Your task to perform on an android device: Clear the shopping cart on ebay.com. Search for logitech g pro on ebay.com, select the first entry, add it to the cart, then select checkout. Image 0: 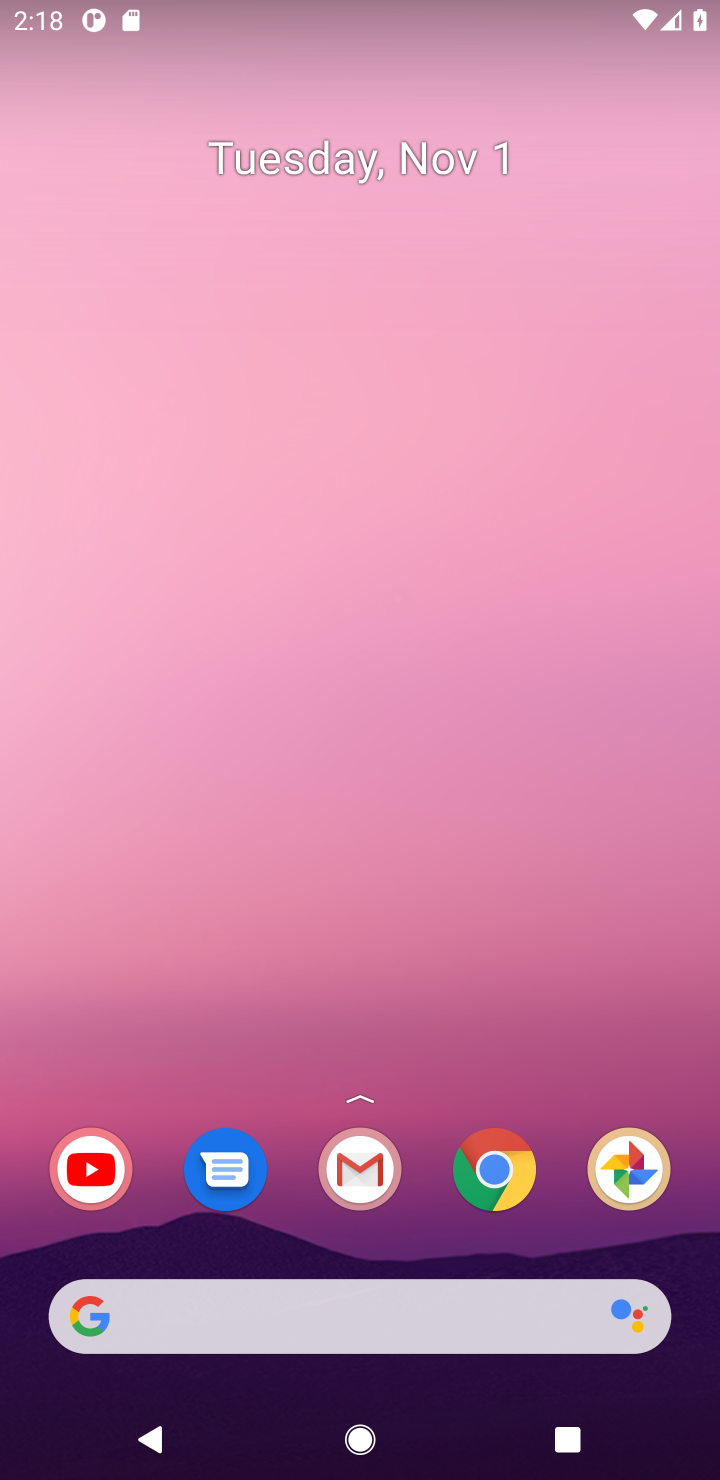
Step 0: press home button
Your task to perform on an android device: Clear the shopping cart on ebay.com. Search for logitech g pro on ebay.com, select the first entry, add it to the cart, then select checkout. Image 1: 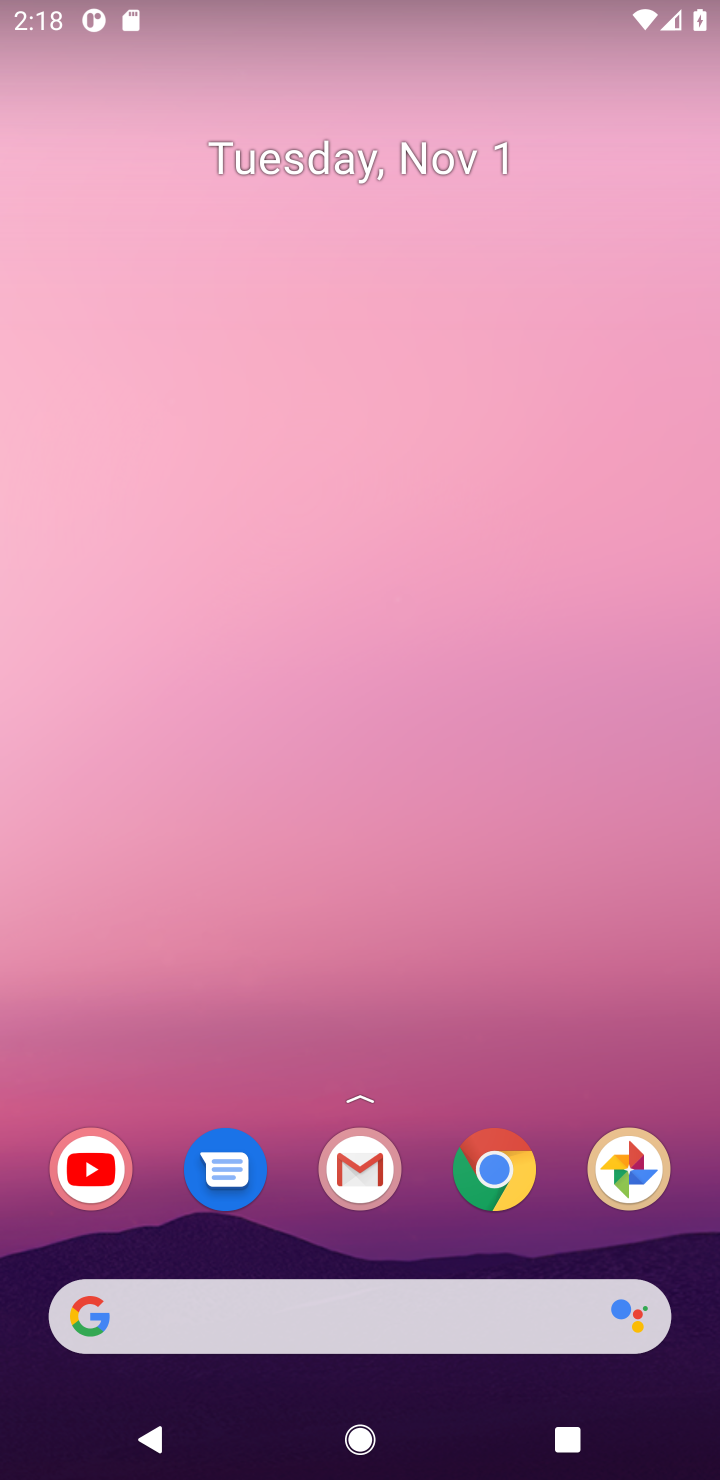
Step 1: drag from (433, 849) to (458, 87)
Your task to perform on an android device: Clear the shopping cart on ebay.com. Search for logitech g pro on ebay.com, select the first entry, add it to the cart, then select checkout. Image 2: 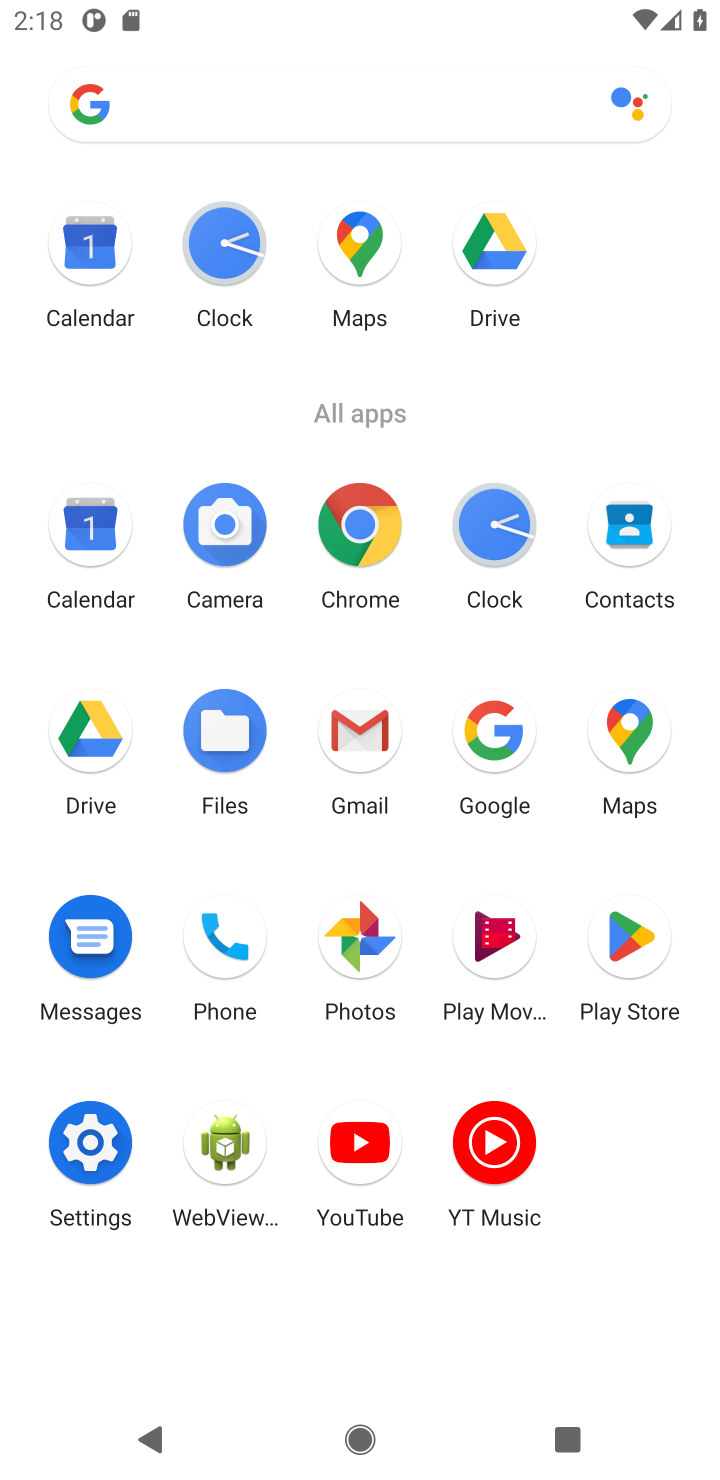
Step 2: click (361, 519)
Your task to perform on an android device: Clear the shopping cart on ebay.com. Search for logitech g pro on ebay.com, select the first entry, add it to the cart, then select checkout. Image 3: 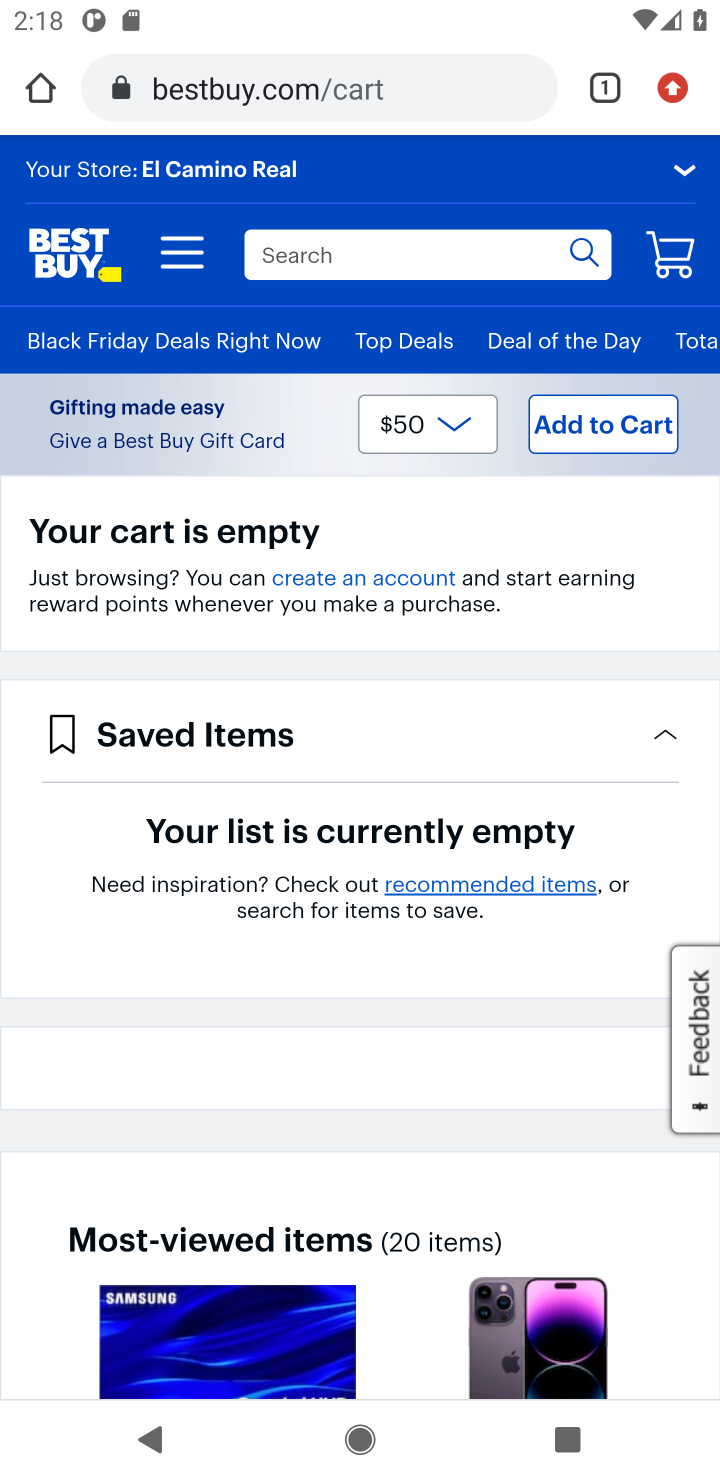
Step 3: click (268, 88)
Your task to perform on an android device: Clear the shopping cart on ebay.com. Search for logitech g pro on ebay.com, select the first entry, add it to the cart, then select checkout. Image 4: 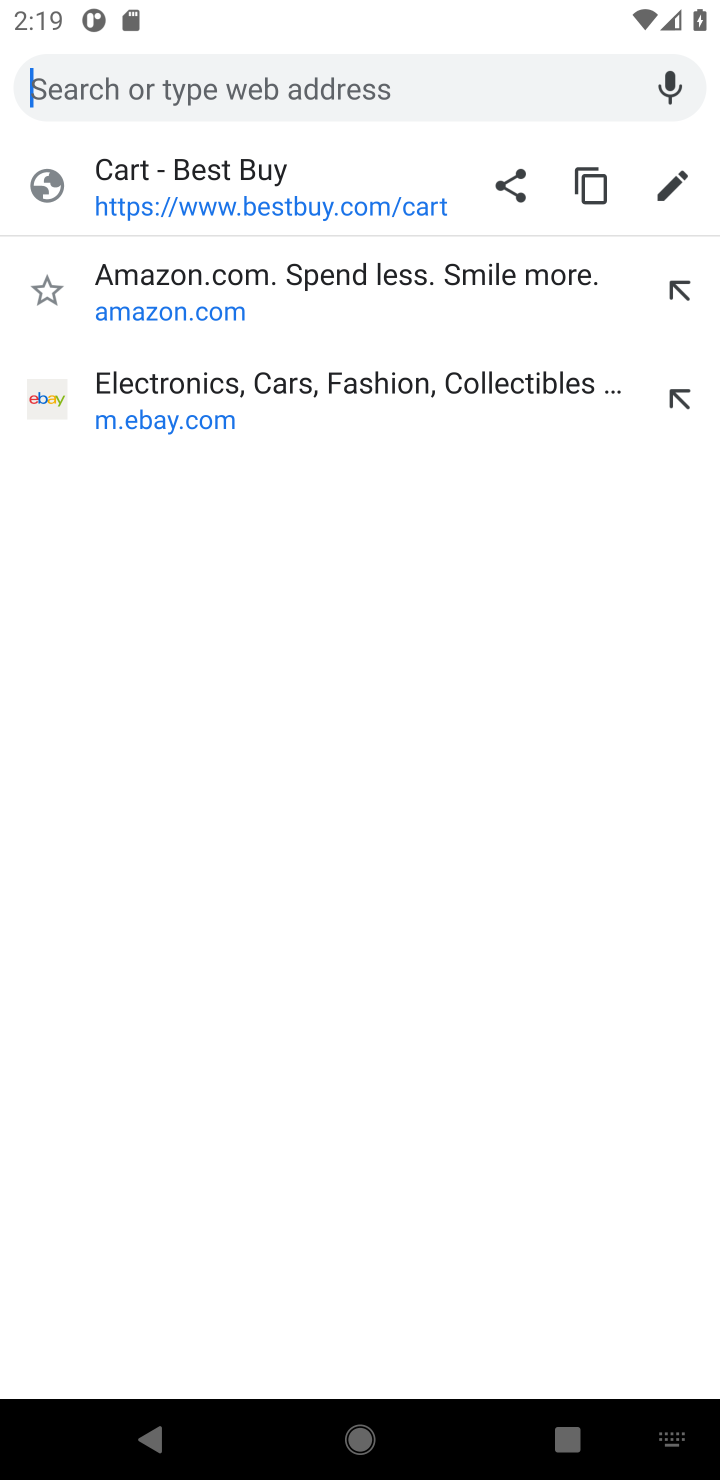
Step 4: click (161, 407)
Your task to perform on an android device: Clear the shopping cart on ebay.com. Search for logitech g pro on ebay.com, select the first entry, add it to the cart, then select checkout. Image 5: 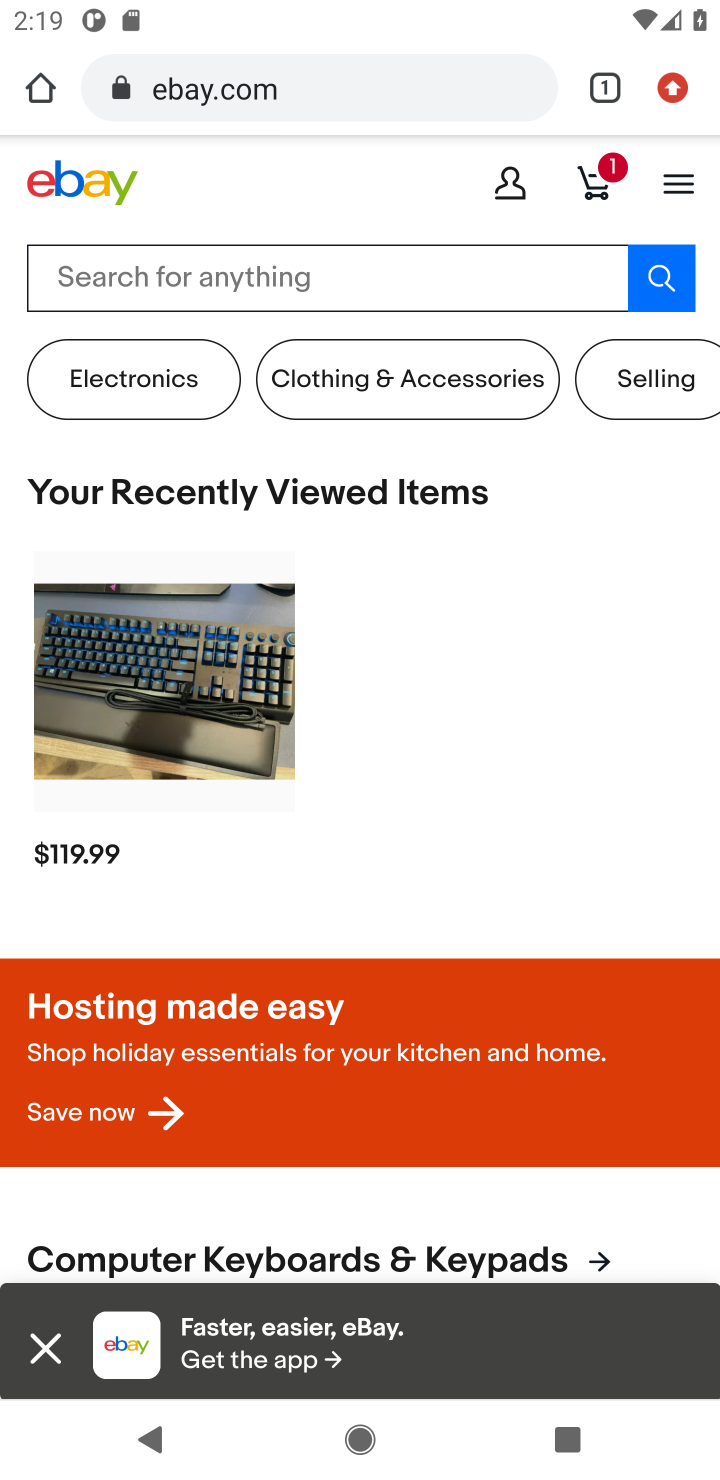
Step 5: click (204, 269)
Your task to perform on an android device: Clear the shopping cart on ebay.com. Search for logitech g pro on ebay.com, select the first entry, add it to the cart, then select checkout. Image 6: 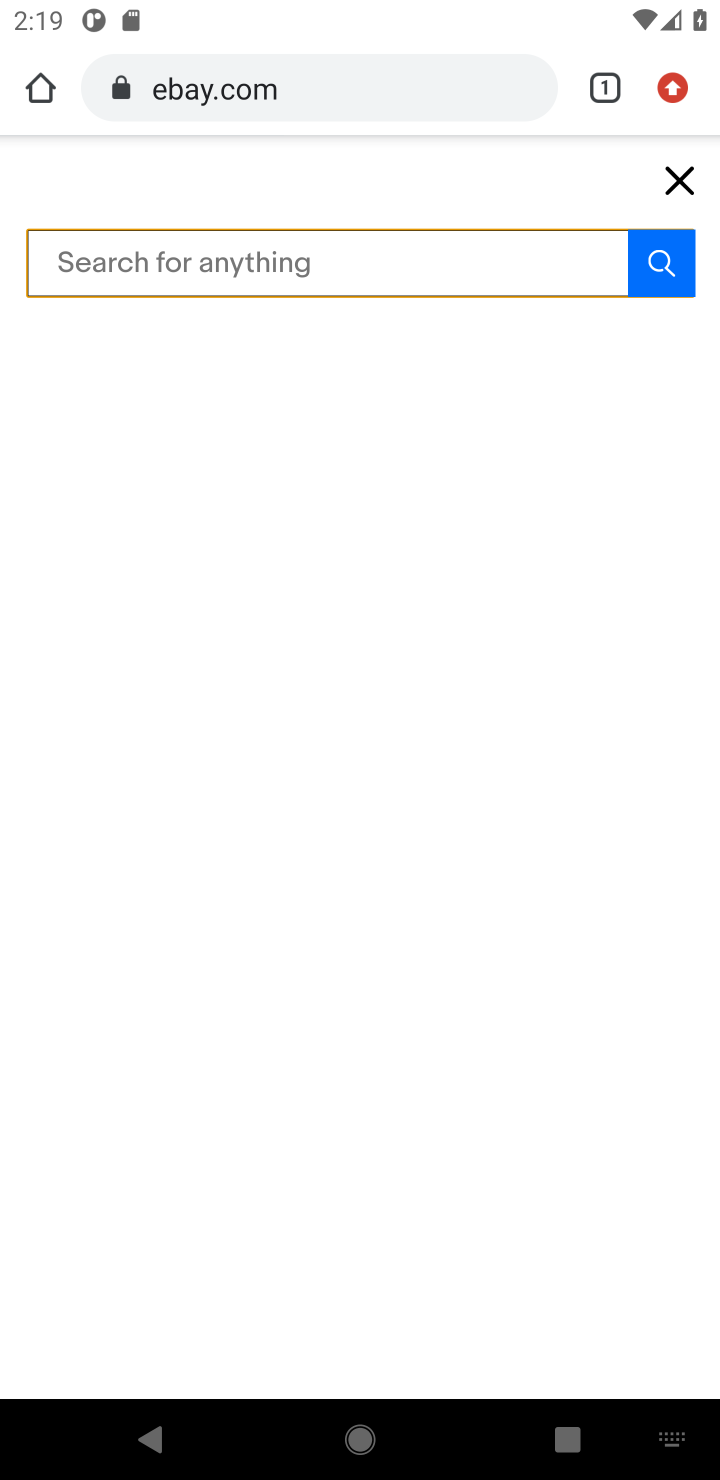
Step 6: type "logitech g pro"
Your task to perform on an android device: Clear the shopping cart on ebay.com. Search for logitech g pro on ebay.com, select the first entry, add it to the cart, then select checkout. Image 7: 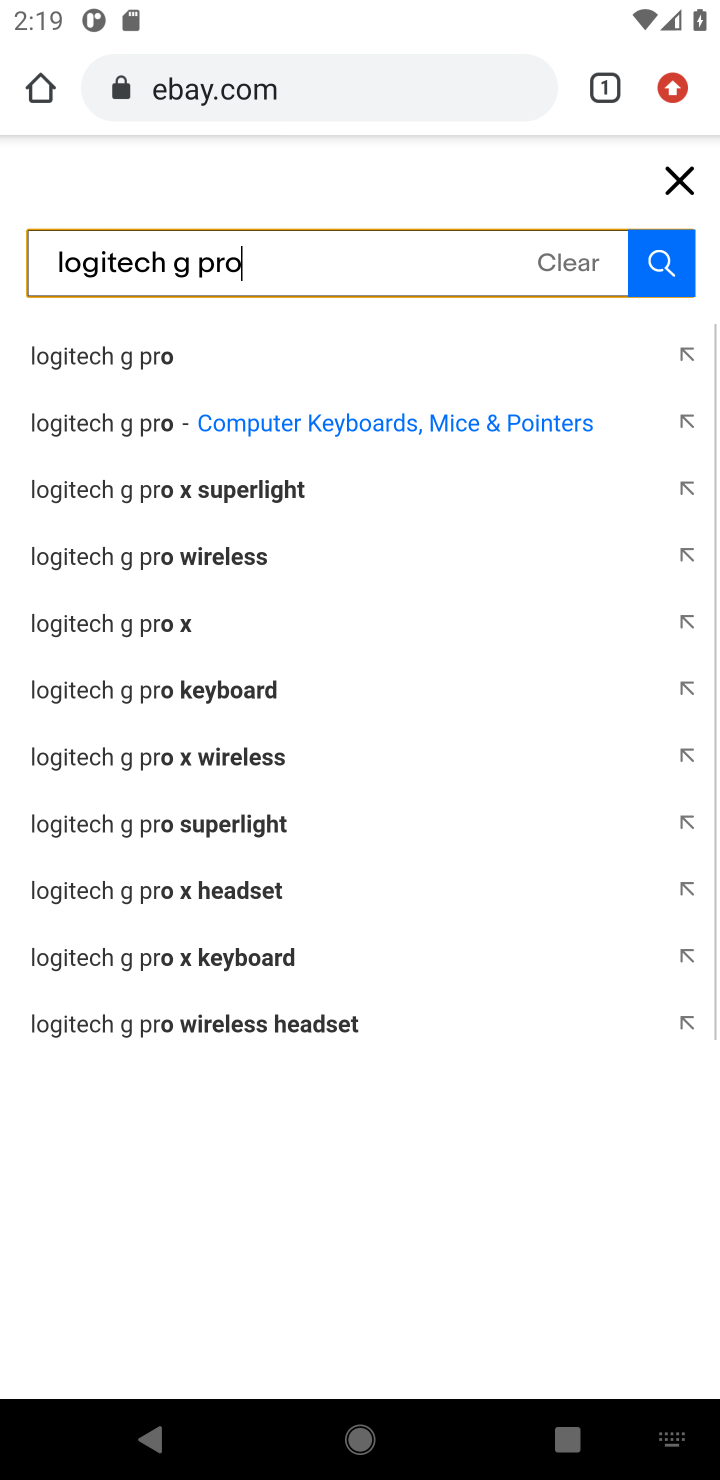
Step 7: type ""
Your task to perform on an android device: Clear the shopping cart on ebay.com. Search for logitech g pro on ebay.com, select the first entry, add it to the cart, then select checkout. Image 8: 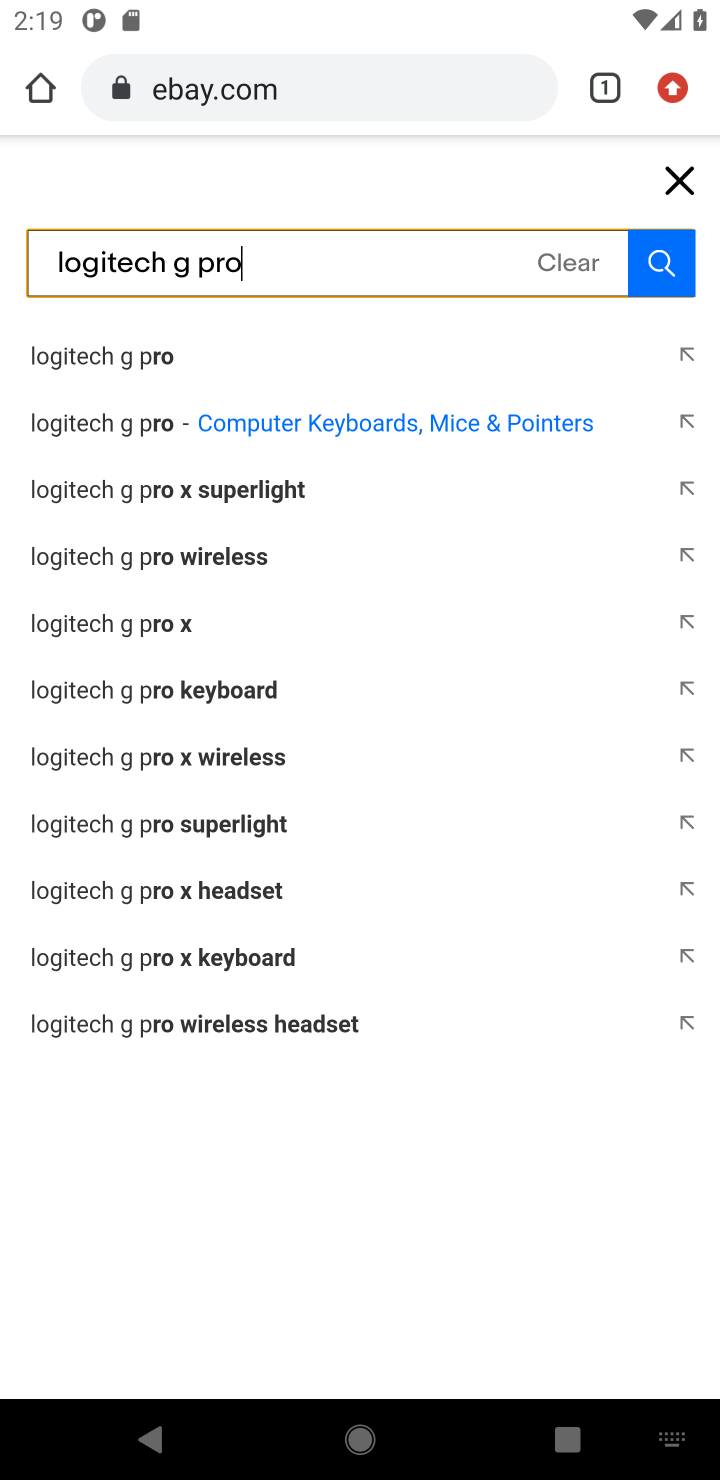
Step 8: click (185, 414)
Your task to perform on an android device: Clear the shopping cart on ebay.com. Search for logitech g pro on ebay.com, select the first entry, add it to the cart, then select checkout. Image 9: 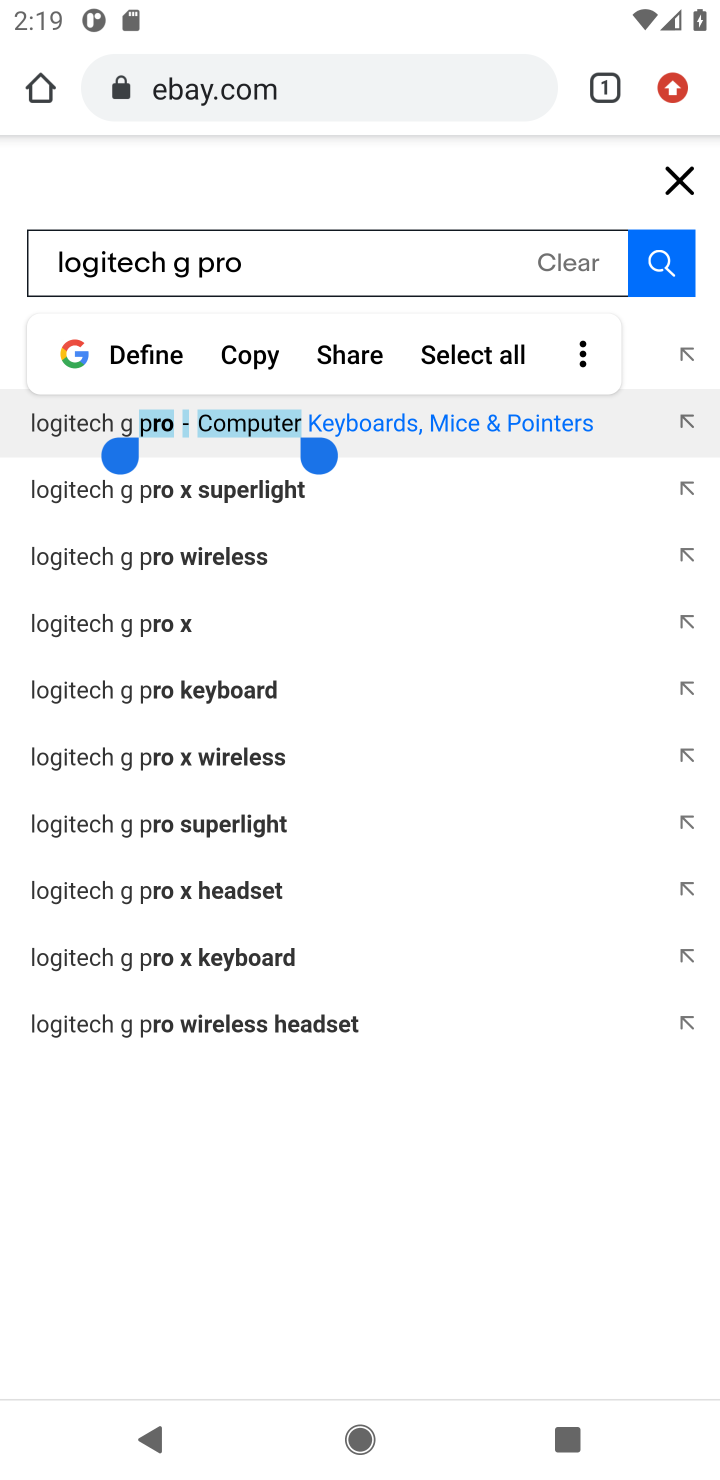
Step 9: click (43, 434)
Your task to perform on an android device: Clear the shopping cart on ebay.com. Search for logitech g pro on ebay.com, select the first entry, add it to the cart, then select checkout. Image 10: 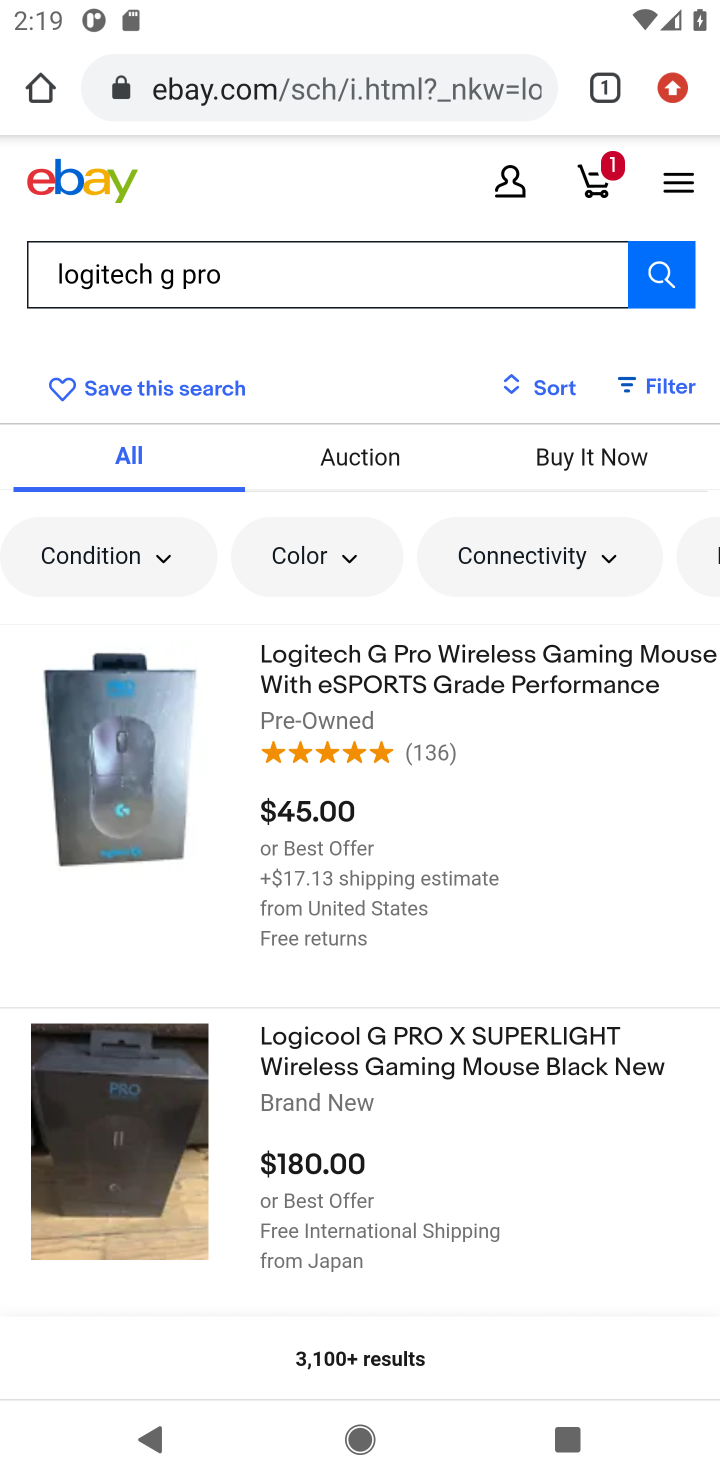
Step 10: click (331, 669)
Your task to perform on an android device: Clear the shopping cart on ebay.com. Search for logitech g pro on ebay.com, select the first entry, add it to the cart, then select checkout. Image 11: 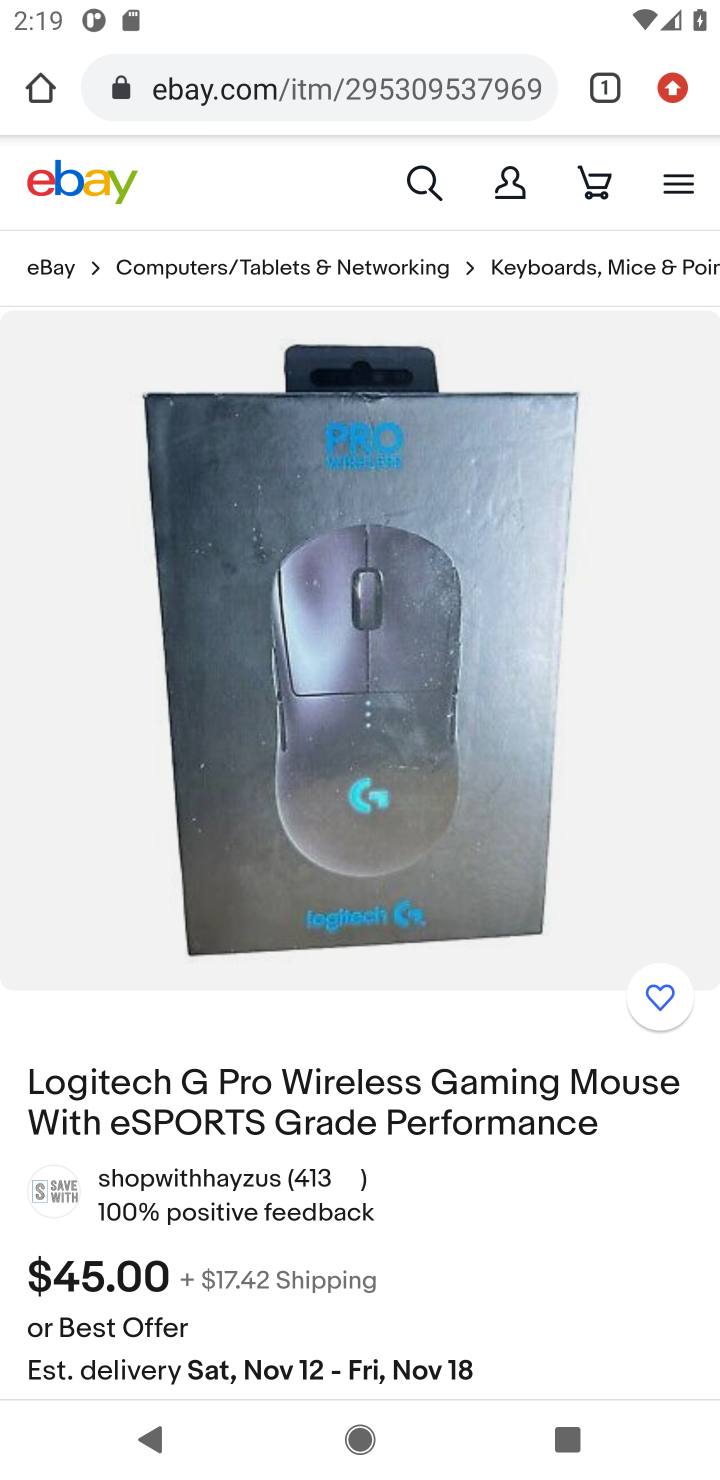
Step 11: drag from (419, 1301) to (389, 269)
Your task to perform on an android device: Clear the shopping cart on ebay.com. Search for logitech g pro on ebay.com, select the first entry, add it to the cart, then select checkout. Image 12: 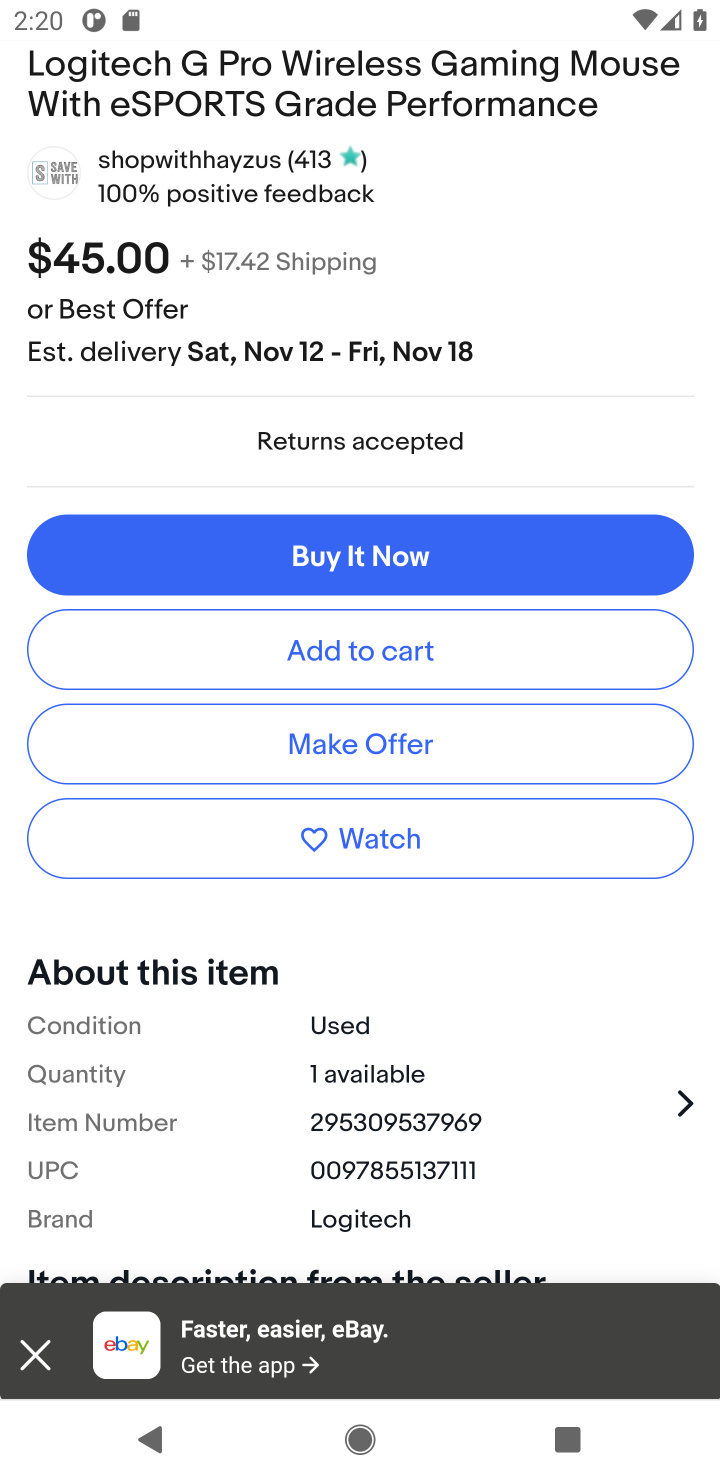
Step 12: drag from (547, 1219) to (511, 344)
Your task to perform on an android device: Clear the shopping cart on ebay.com. Search for logitech g pro on ebay.com, select the first entry, add it to the cart, then select checkout. Image 13: 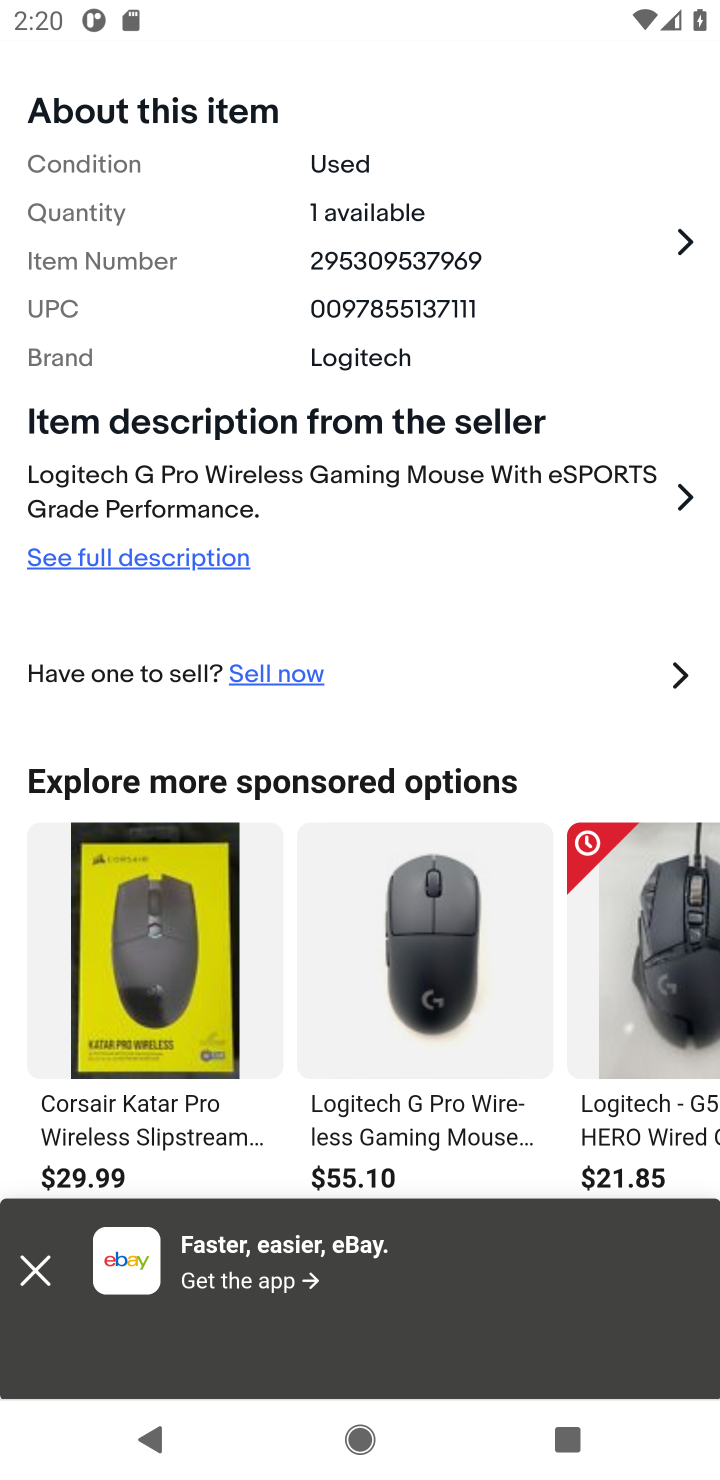
Step 13: click (30, 1280)
Your task to perform on an android device: Clear the shopping cart on ebay.com. Search for logitech g pro on ebay.com, select the first entry, add it to the cart, then select checkout. Image 14: 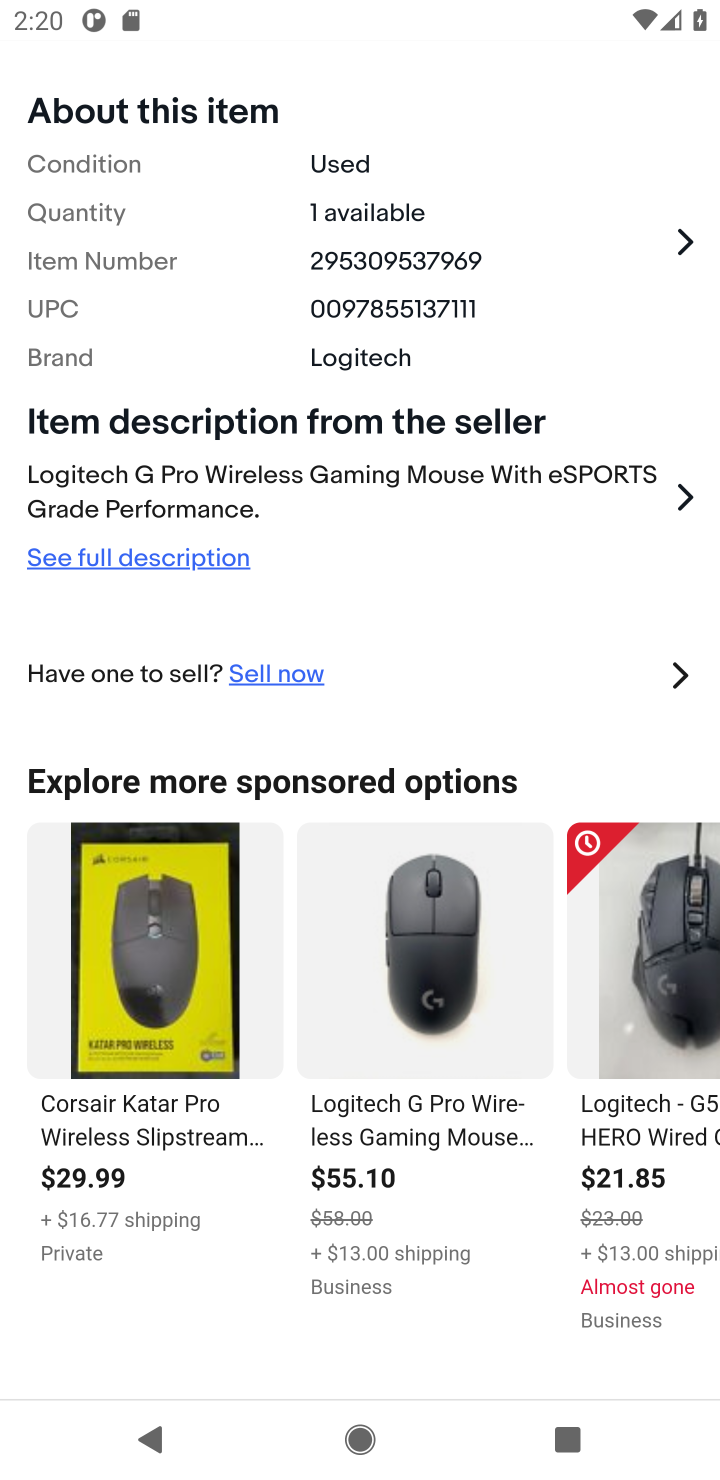
Step 14: drag from (430, 480) to (431, 1241)
Your task to perform on an android device: Clear the shopping cart on ebay.com. Search for logitech g pro on ebay.com, select the first entry, add it to the cart, then select checkout. Image 15: 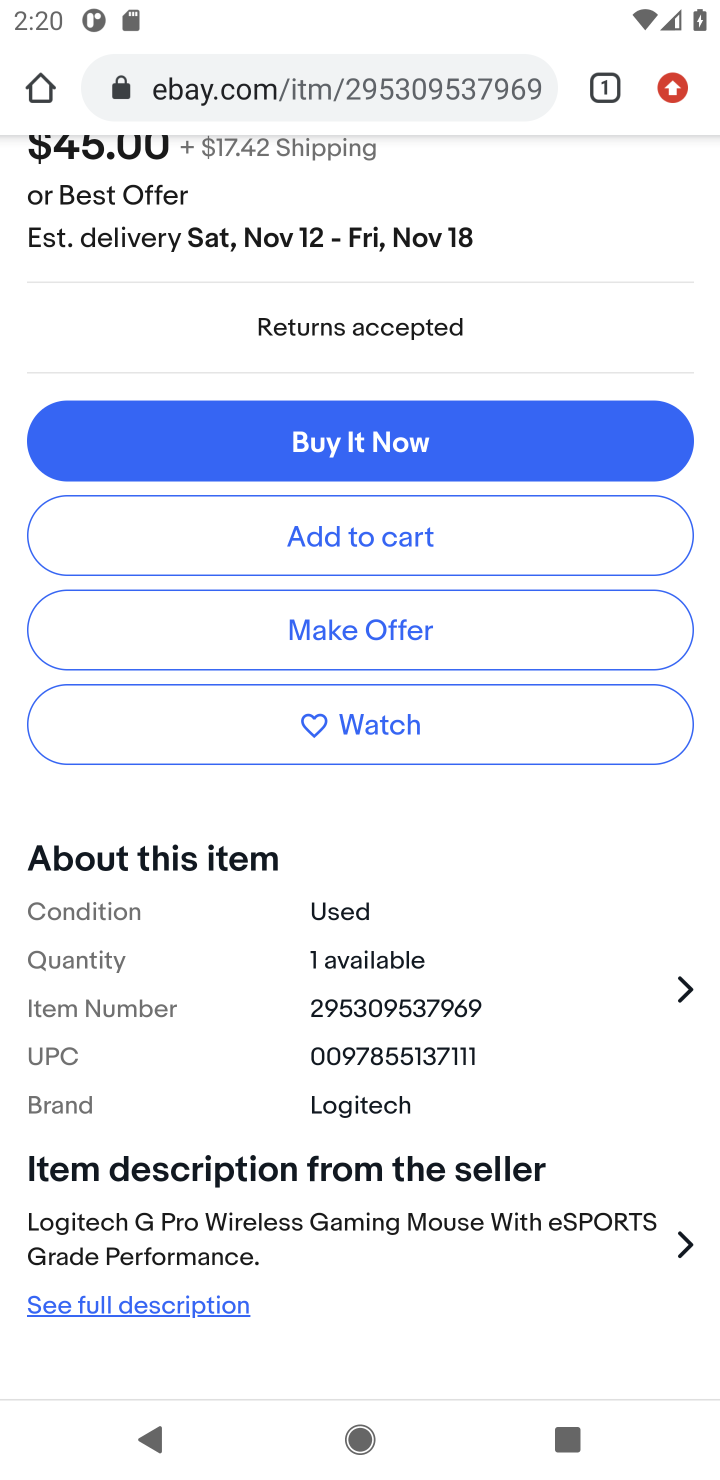
Step 15: click (363, 535)
Your task to perform on an android device: Clear the shopping cart on ebay.com. Search for logitech g pro on ebay.com, select the first entry, add it to the cart, then select checkout. Image 16: 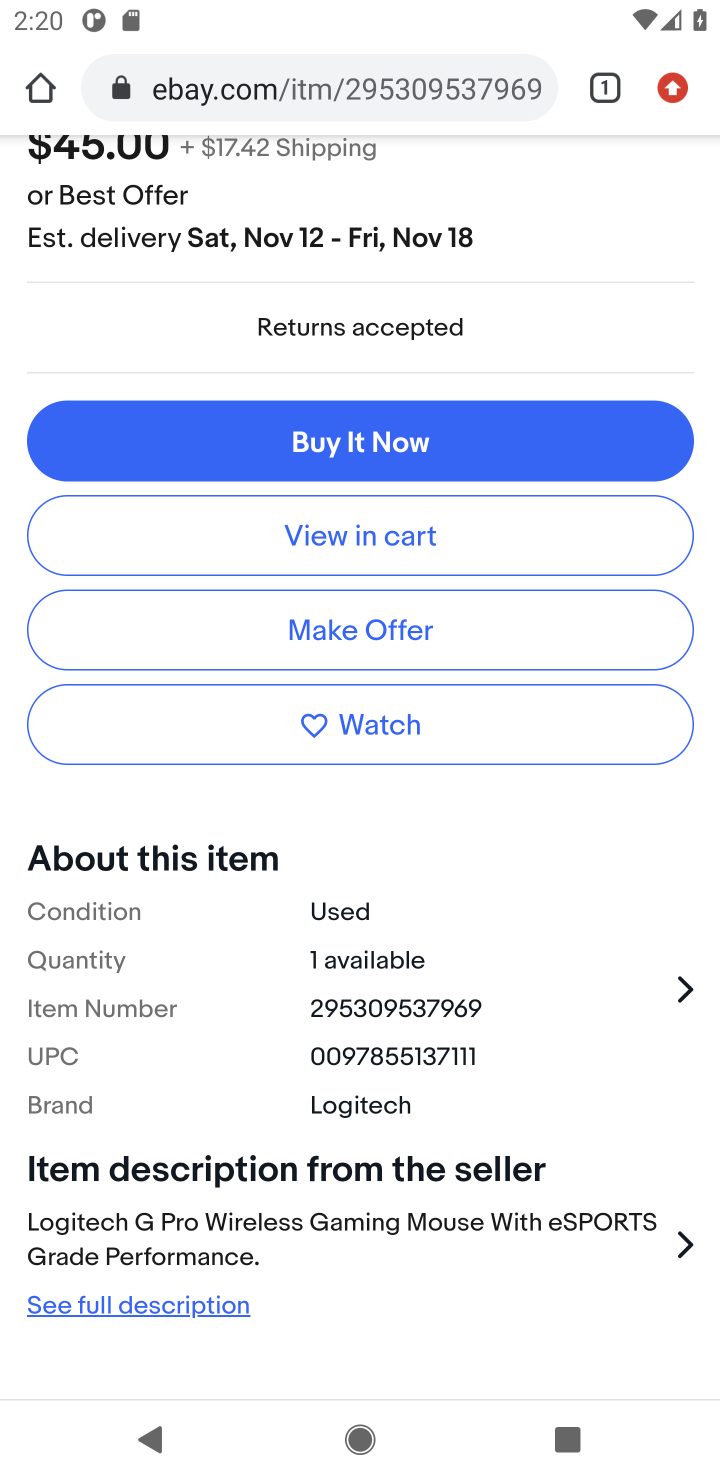
Step 16: click (363, 535)
Your task to perform on an android device: Clear the shopping cart on ebay.com. Search for logitech g pro on ebay.com, select the first entry, add it to the cart, then select checkout. Image 17: 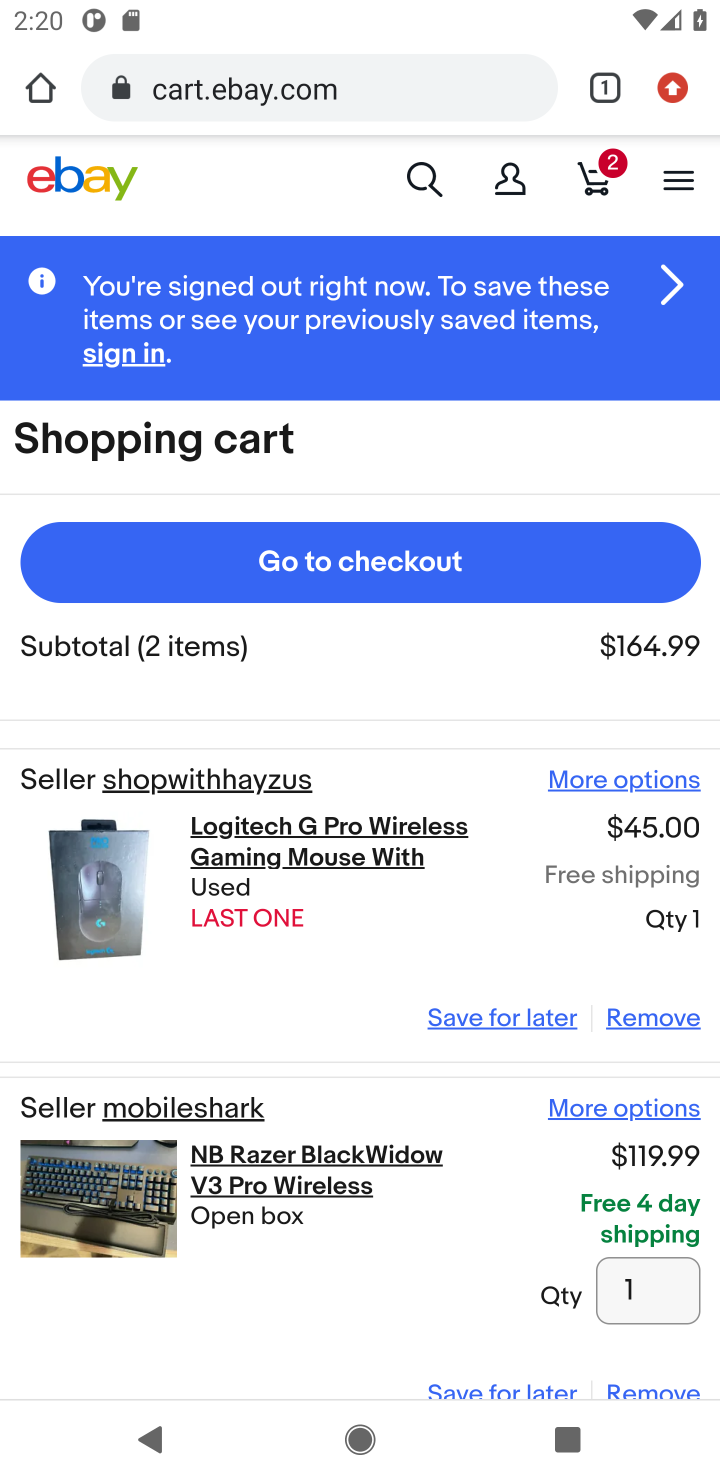
Step 17: click (360, 555)
Your task to perform on an android device: Clear the shopping cart on ebay.com. Search for logitech g pro on ebay.com, select the first entry, add it to the cart, then select checkout. Image 18: 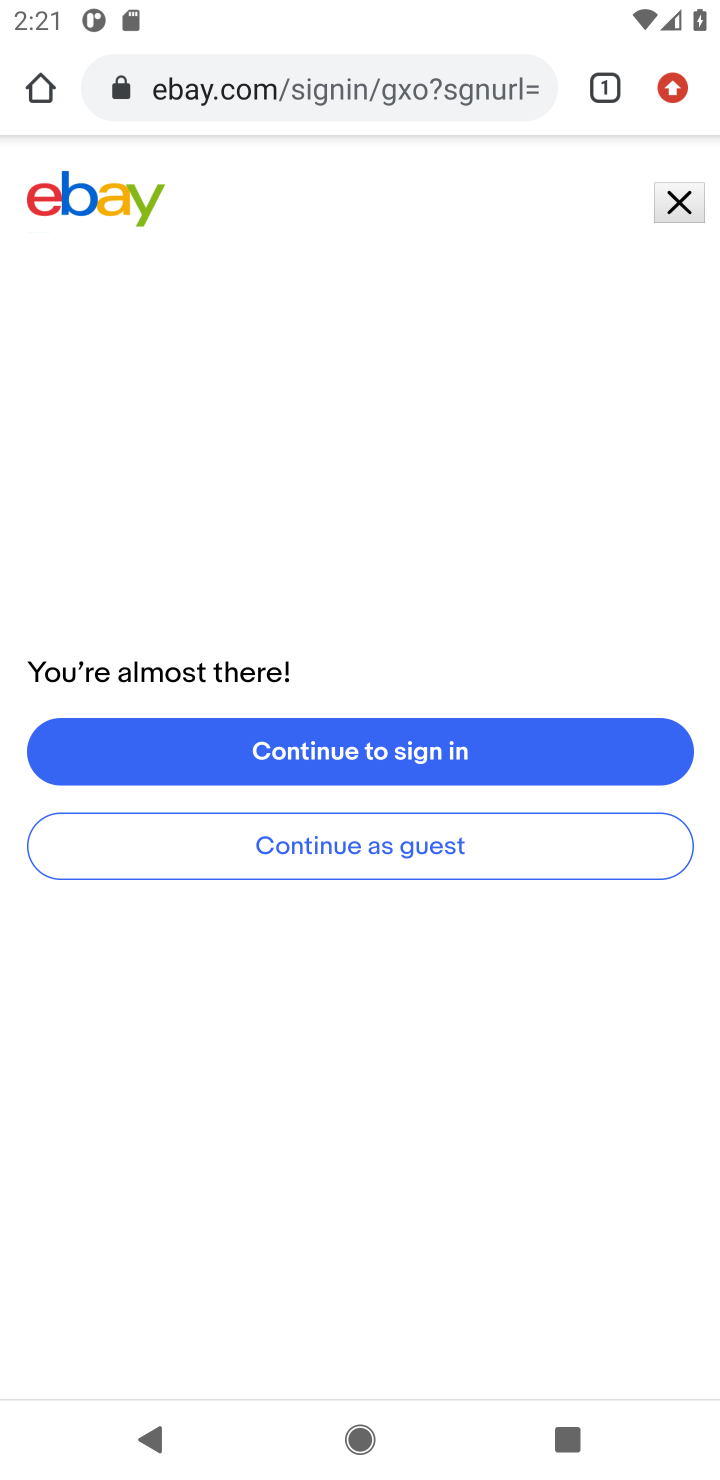
Step 18: task complete